Your task to perform on an android device: open the mobile data screen to see how much data has been used Image 0: 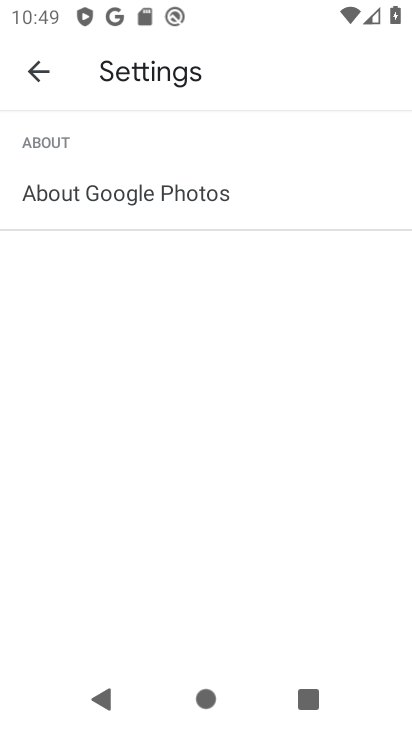
Step 0: press home button
Your task to perform on an android device: open the mobile data screen to see how much data has been used Image 1: 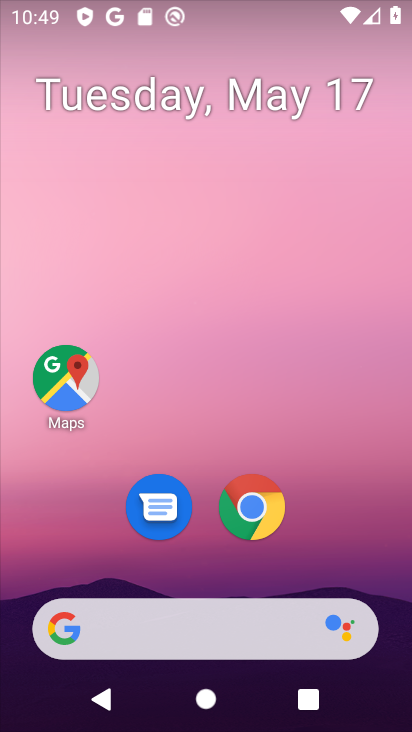
Step 1: drag from (196, 575) to (283, 132)
Your task to perform on an android device: open the mobile data screen to see how much data has been used Image 2: 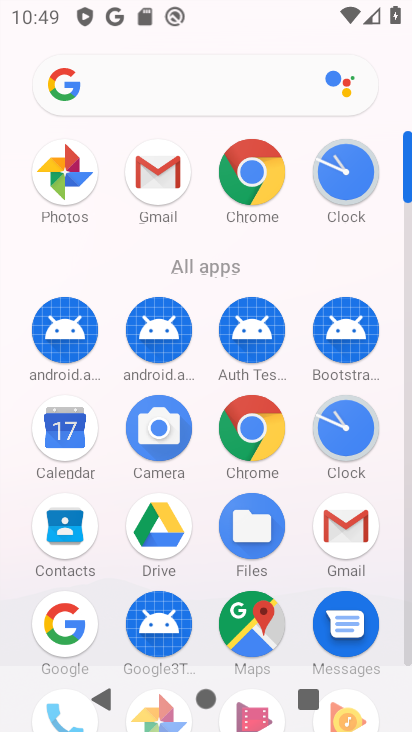
Step 2: drag from (250, 567) to (304, 397)
Your task to perform on an android device: open the mobile data screen to see how much data has been used Image 3: 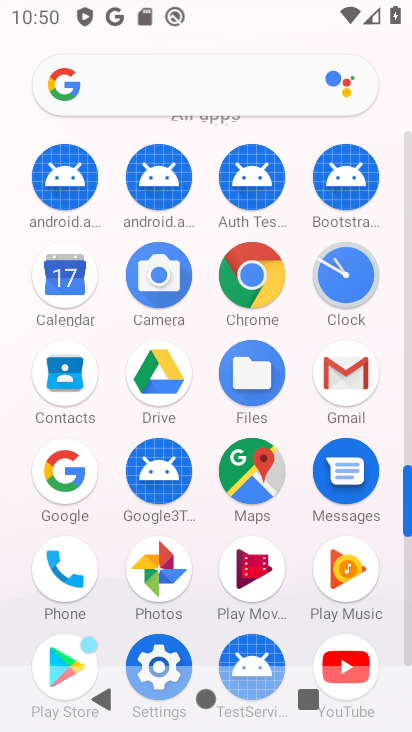
Step 3: click (158, 656)
Your task to perform on an android device: open the mobile data screen to see how much data has been used Image 4: 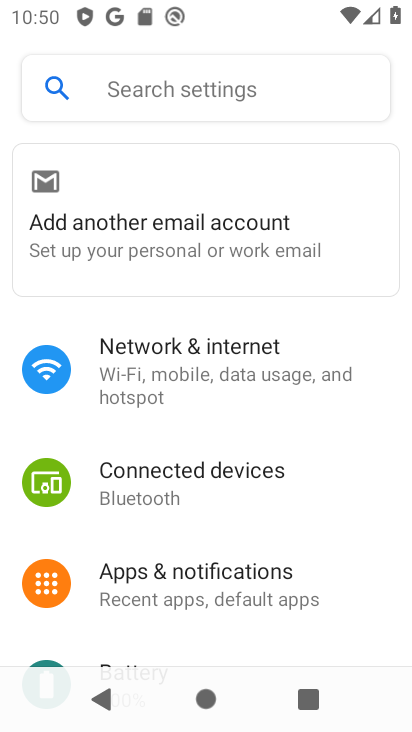
Step 4: click (264, 375)
Your task to perform on an android device: open the mobile data screen to see how much data has been used Image 5: 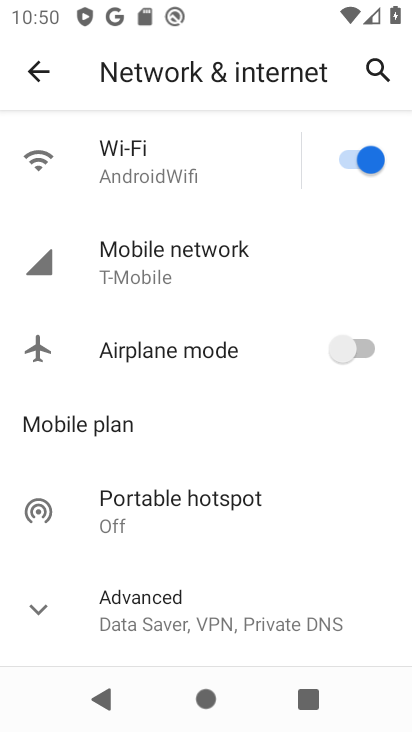
Step 5: click (252, 275)
Your task to perform on an android device: open the mobile data screen to see how much data has been used Image 6: 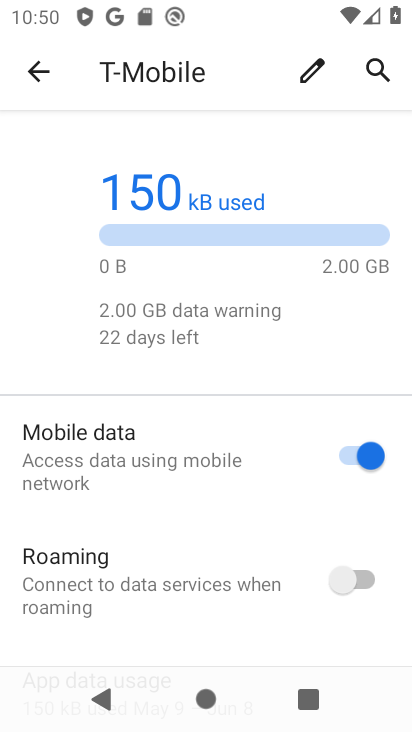
Step 6: task complete